Your task to perform on an android device: Open Google Chrome and open the bookmarks view Image 0: 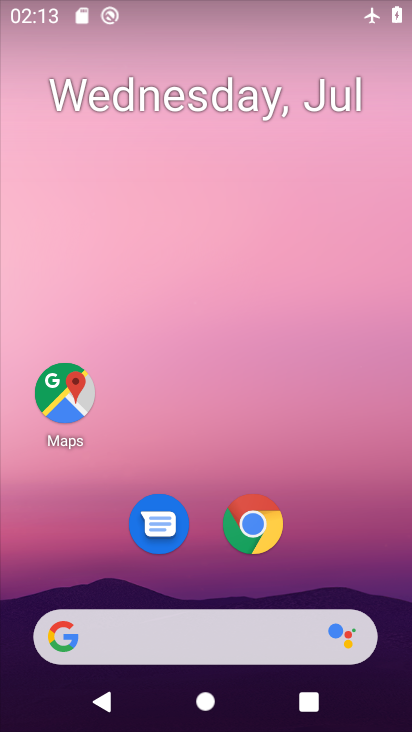
Step 0: click (271, 521)
Your task to perform on an android device: Open Google Chrome and open the bookmarks view Image 1: 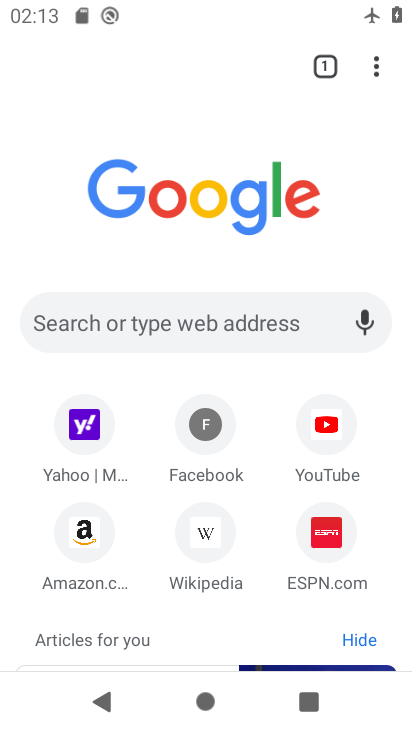
Step 1: click (376, 72)
Your task to perform on an android device: Open Google Chrome and open the bookmarks view Image 2: 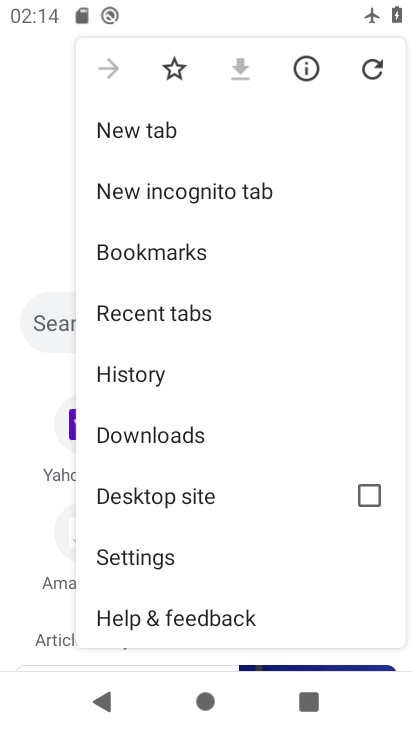
Step 2: click (196, 256)
Your task to perform on an android device: Open Google Chrome and open the bookmarks view Image 3: 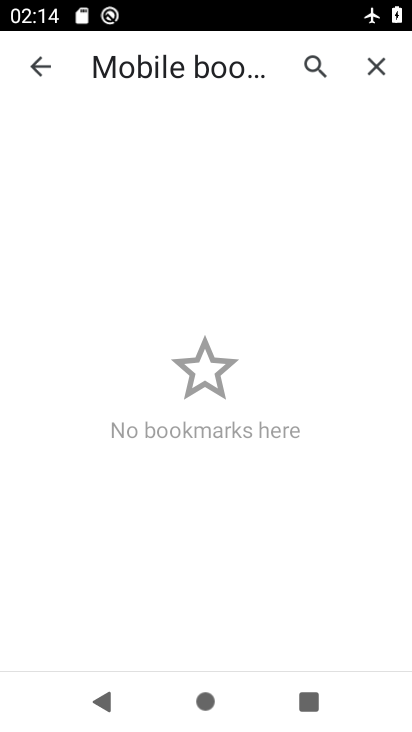
Step 3: task complete